Your task to perform on an android device: Search for pizza restaurants on Maps Image 0: 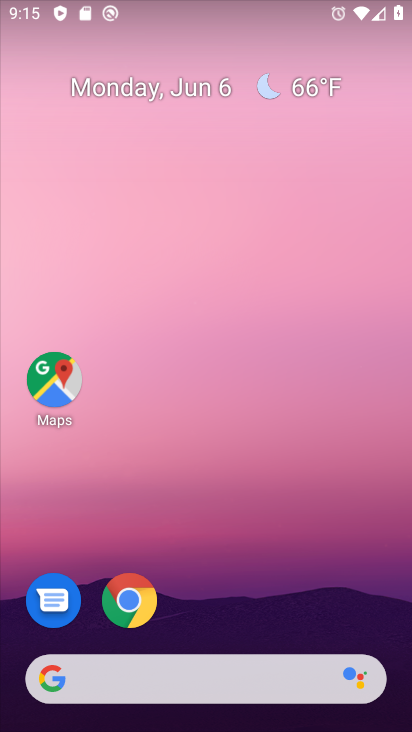
Step 0: click (51, 378)
Your task to perform on an android device: Search for pizza restaurants on Maps Image 1: 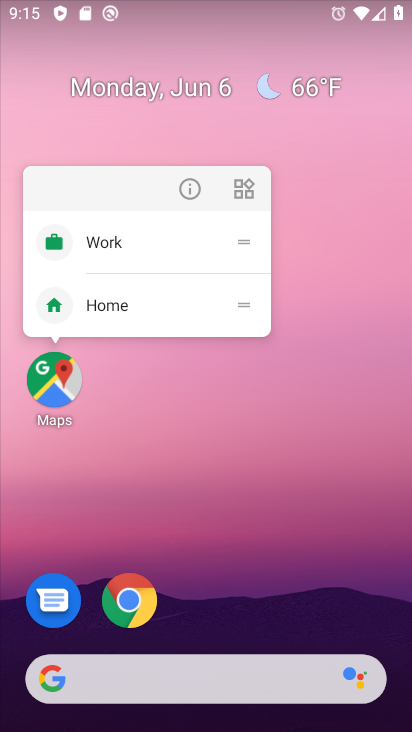
Step 1: click (51, 378)
Your task to perform on an android device: Search for pizza restaurants on Maps Image 2: 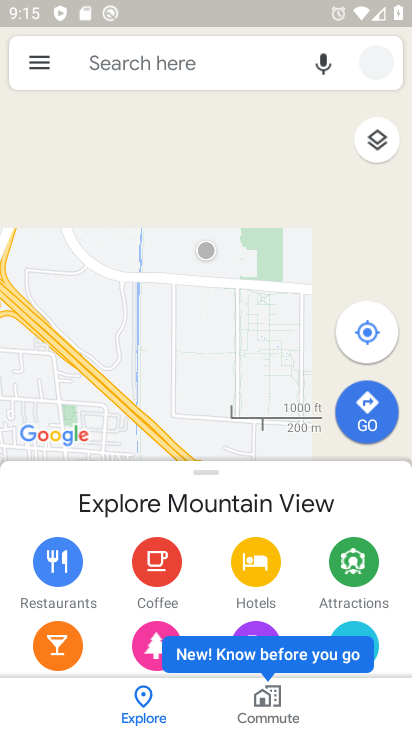
Step 2: click (247, 60)
Your task to perform on an android device: Search for pizza restaurants on Maps Image 3: 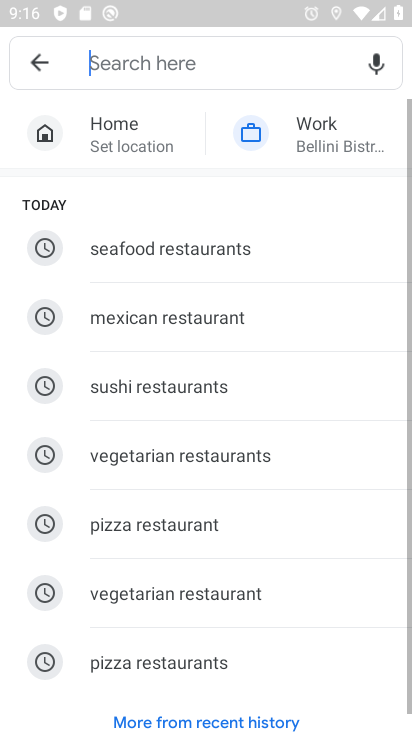
Step 3: click (183, 509)
Your task to perform on an android device: Search for pizza restaurants on Maps Image 4: 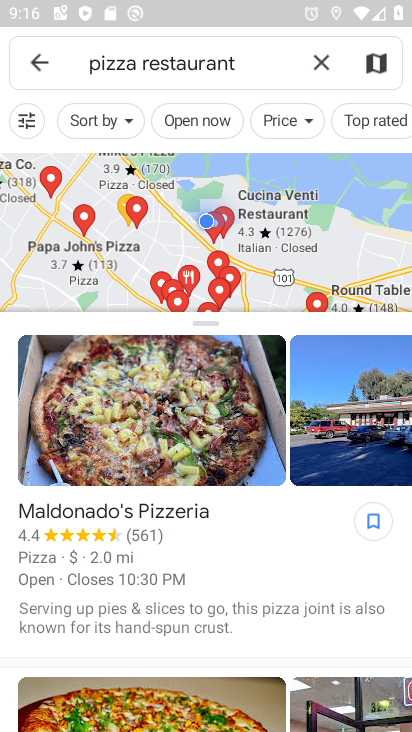
Step 4: task complete